Your task to perform on an android device: open a new tab in the chrome app Image 0: 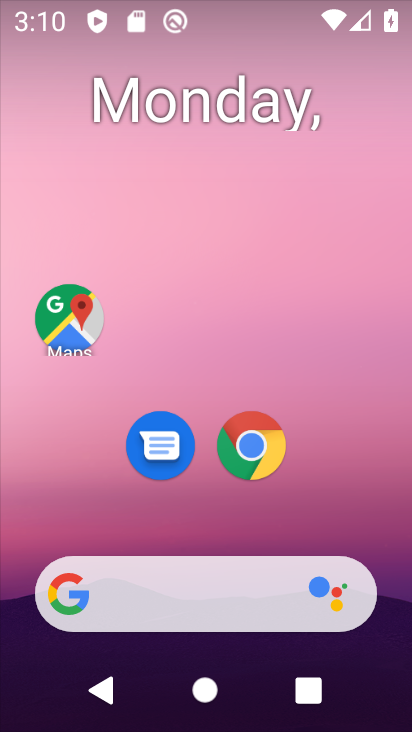
Step 0: click (251, 447)
Your task to perform on an android device: open a new tab in the chrome app Image 1: 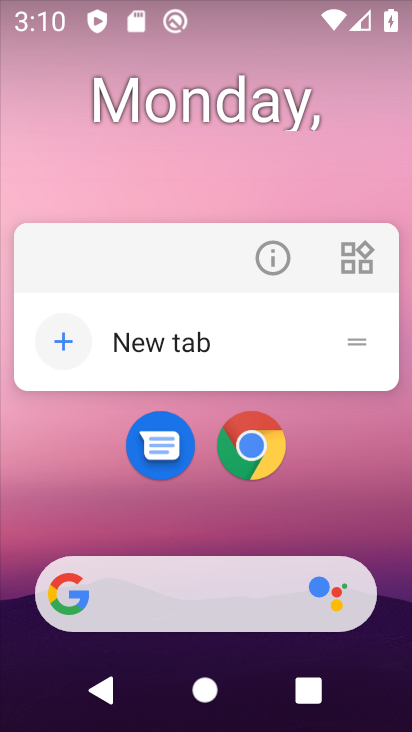
Step 1: click (184, 352)
Your task to perform on an android device: open a new tab in the chrome app Image 2: 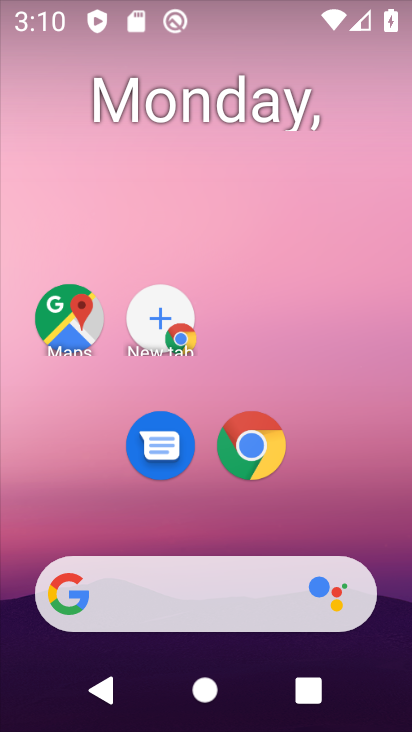
Step 2: click (250, 441)
Your task to perform on an android device: open a new tab in the chrome app Image 3: 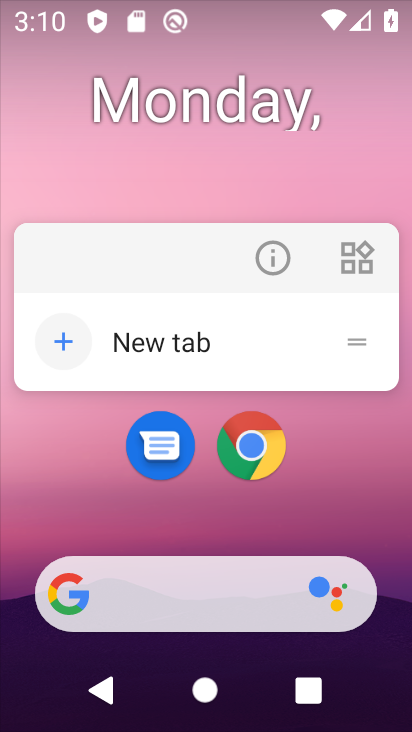
Step 3: click (250, 441)
Your task to perform on an android device: open a new tab in the chrome app Image 4: 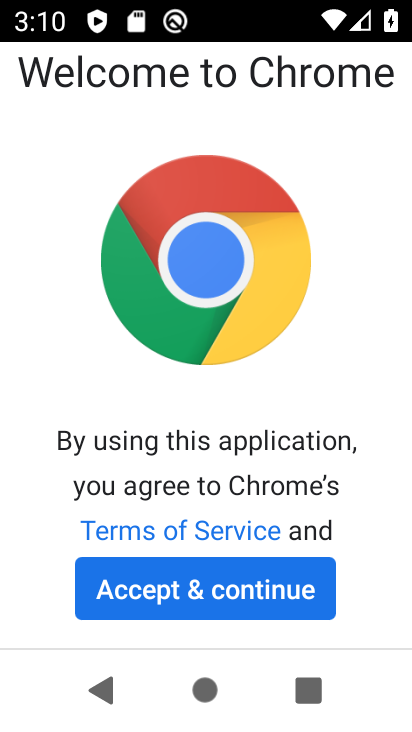
Step 4: click (202, 585)
Your task to perform on an android device: open a new tab in the chrome app Image 5: 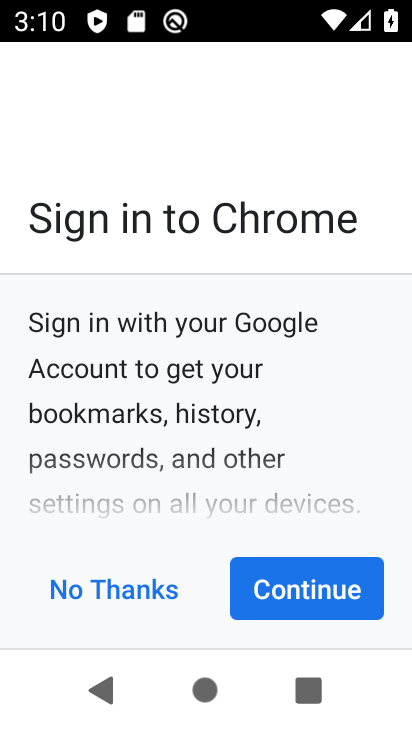
Step 5: click (300, 583)
Your task to perform on an android device: open a new tab in the chrome app Image 6: 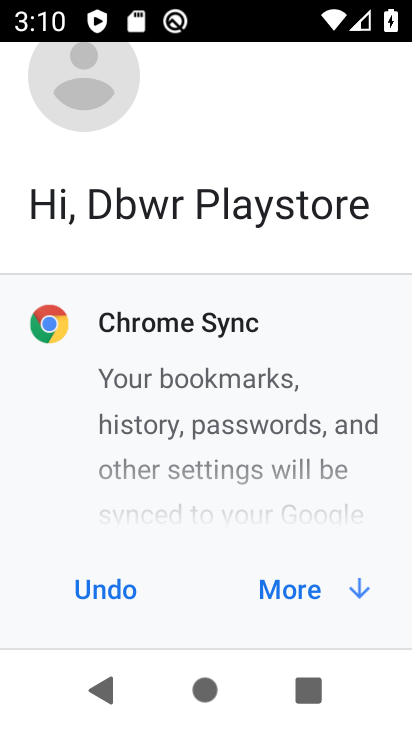
Step 6: click (291, 578)
Your task to perform on an android device: open a new tab in the chrome app Image 7: 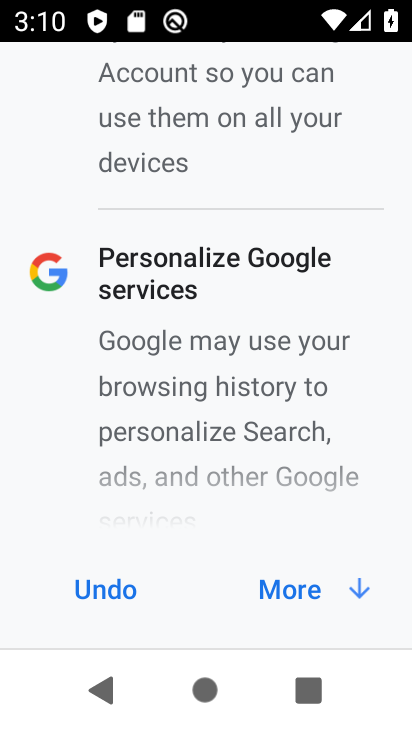
Step 7: click (309, 585)
Your task to perform on an android device: open a new tab in the chrome app Image 8: 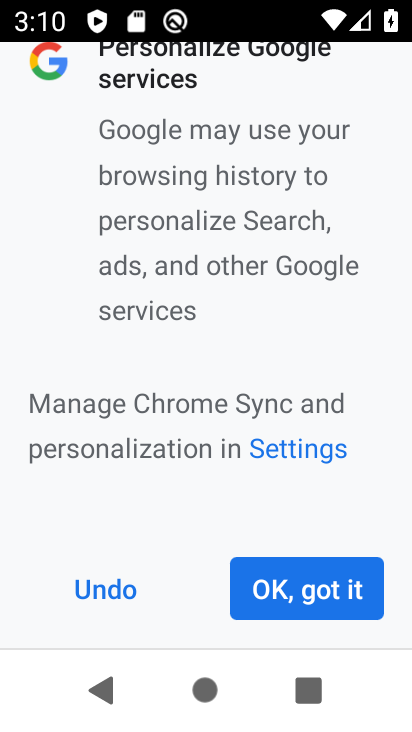
Step 8: click (309, 585)
Your task to perform on an android device: open a new tab in the chrome app Image 9: 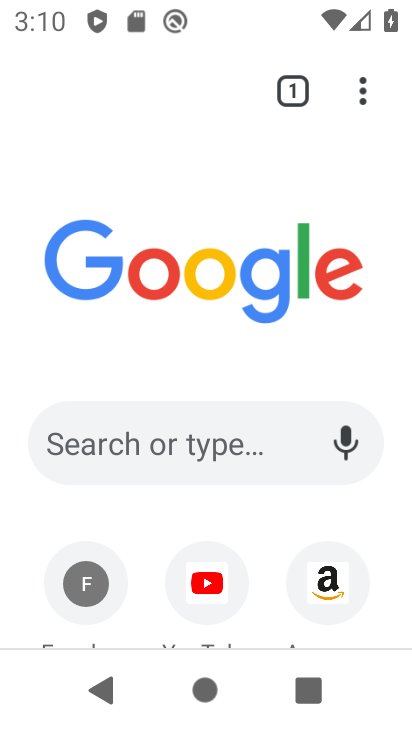
Step 9: click (363, 85)
Your task to perform on an android device: open a new tab in the chrome app Image 10: 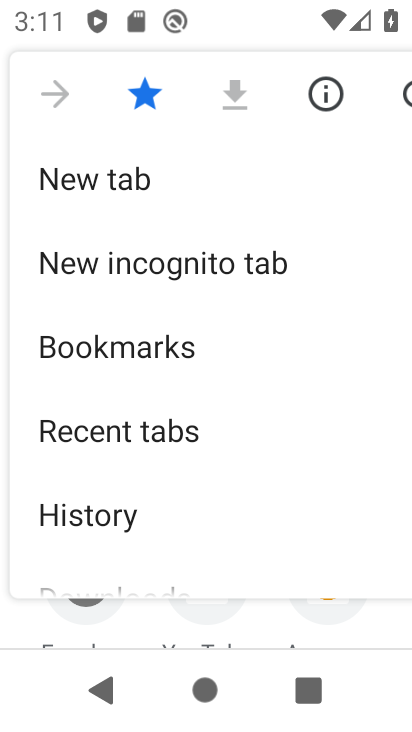
Step 10: click (177, 164)
Your task to perform on an android device: open a new tab in the chrome app Image 11: 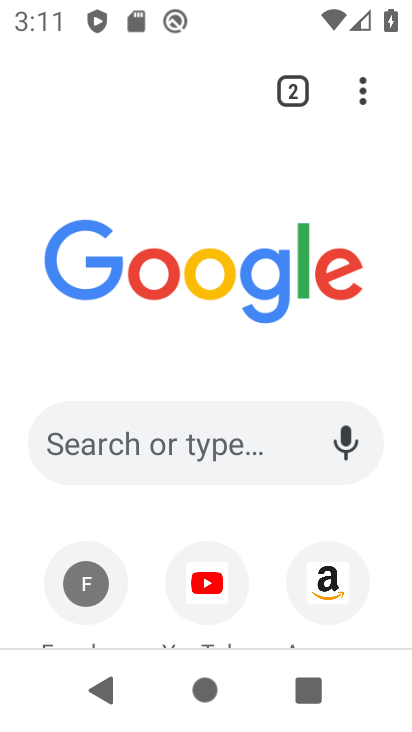
Step 11: task complete